Your task to perform on an android device: Clear the cart on bestbuy. Image 0: 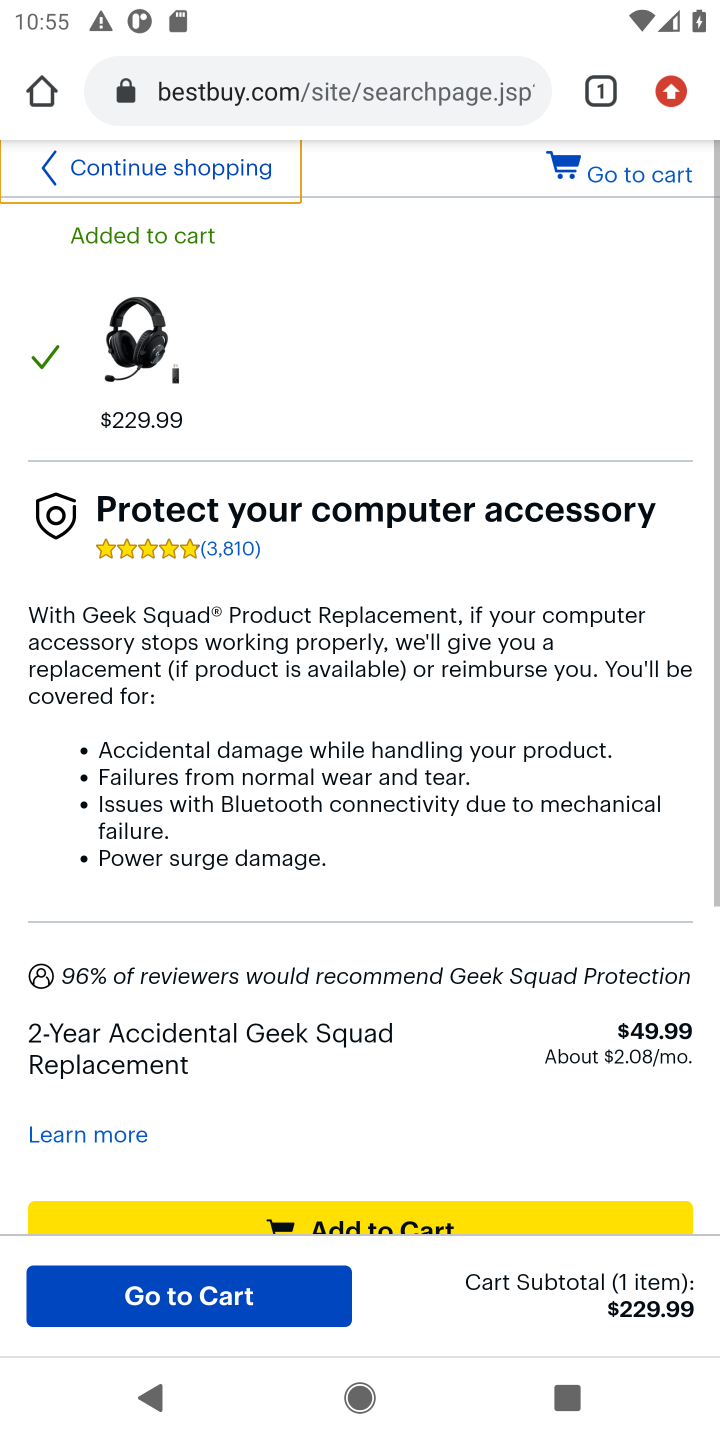
Step 0: press home button
Your task to perform on an android device: Clear the cart on bestbuy. Image 1: 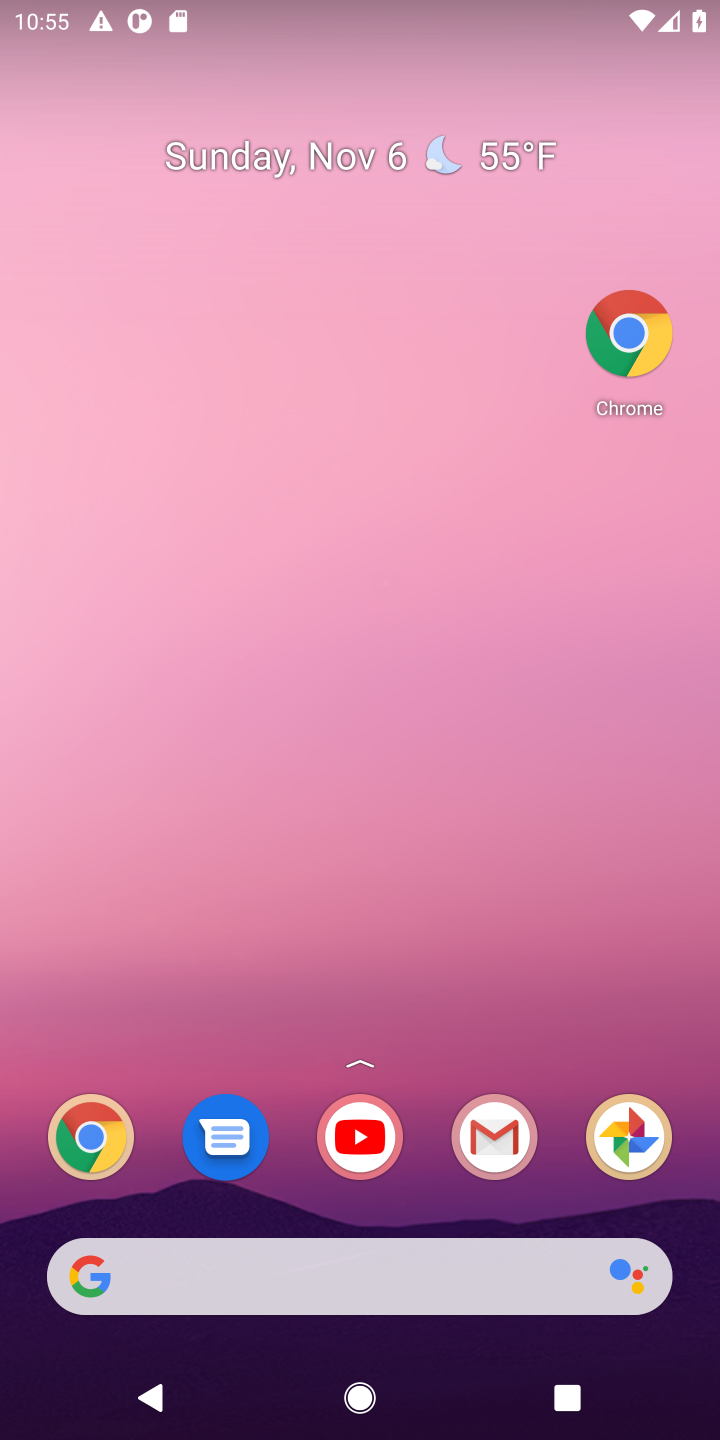
Step 1: drag from (418, 1207) to (255, 31)
Your task to perform on an android device: Clear the cart on bestbuy. Image 2: 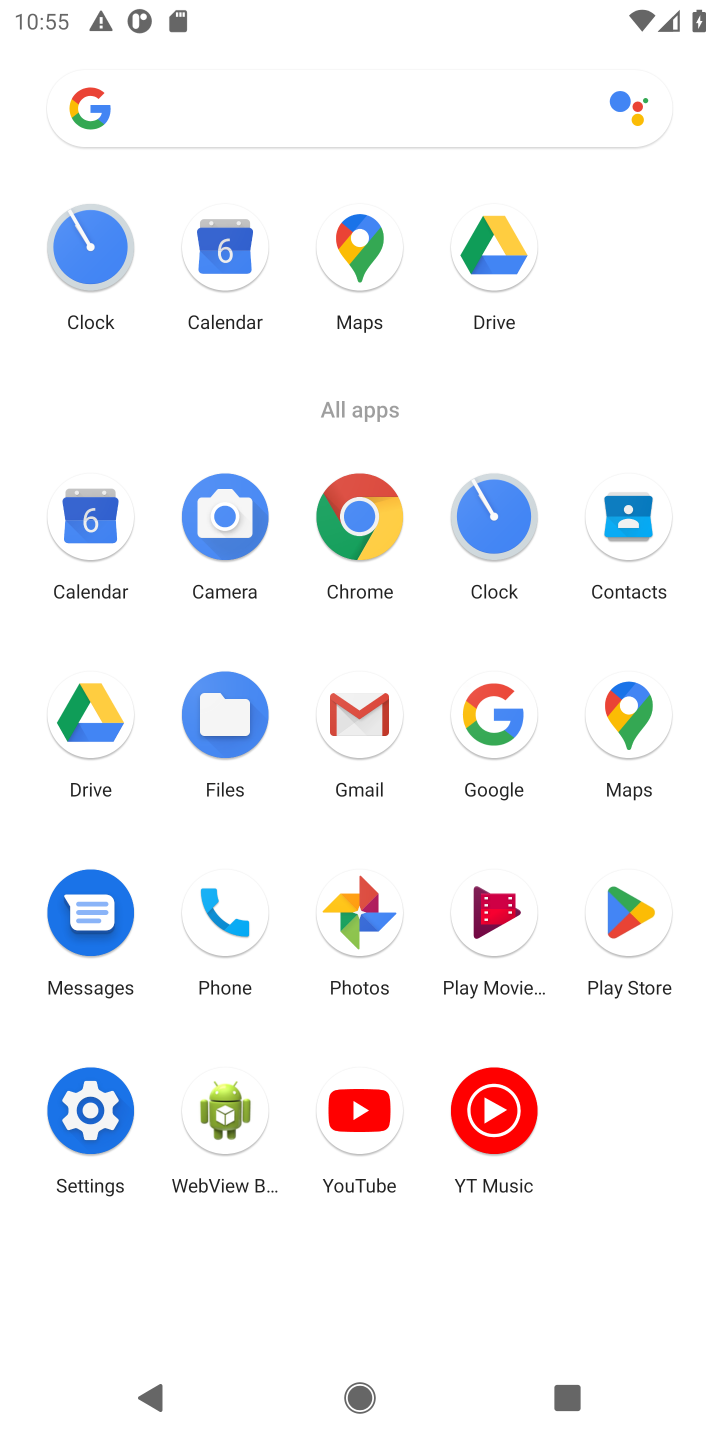
Step 2: click (366, 522)
Your task to perform on an android device: Clear the cart on bestbuy. Image 3: 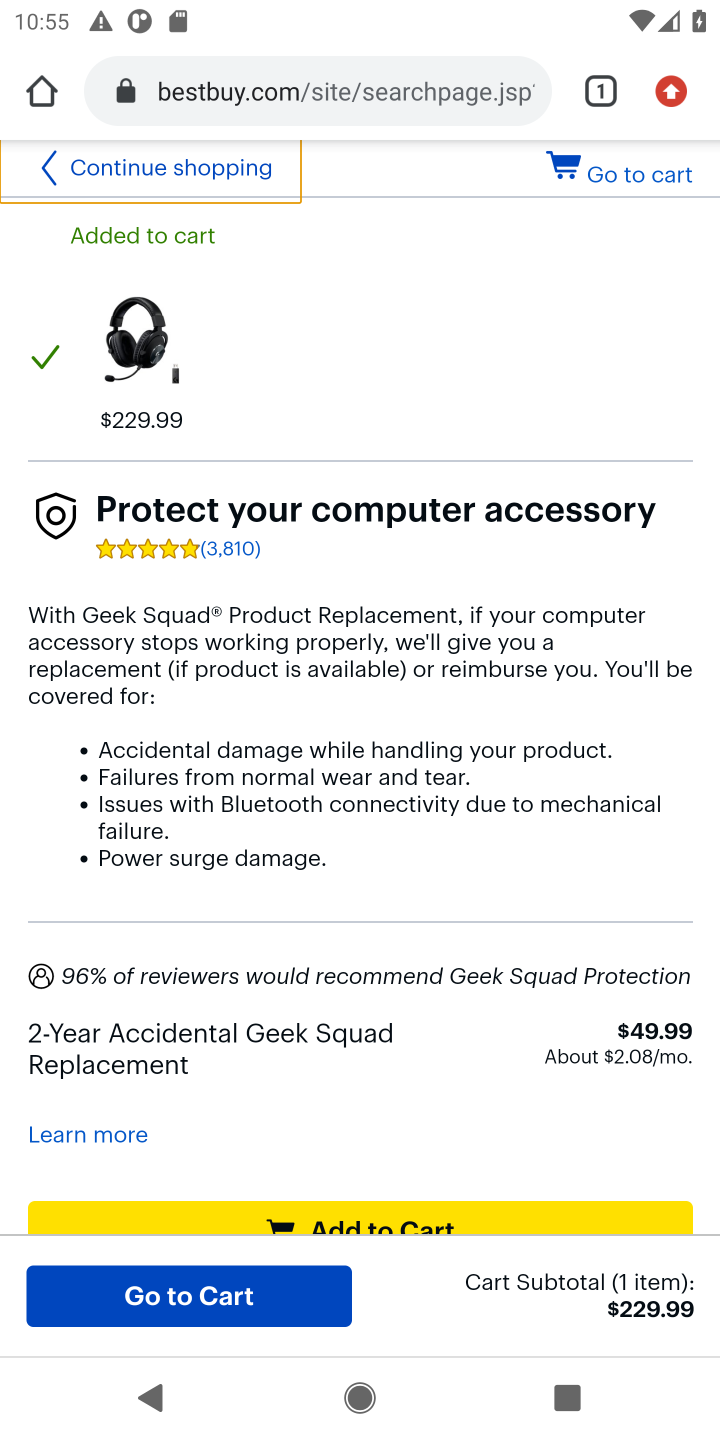
Step 3: click (361, 94)
Your task to perform on an android device: Clear the cart on bestbuy. Image 4: 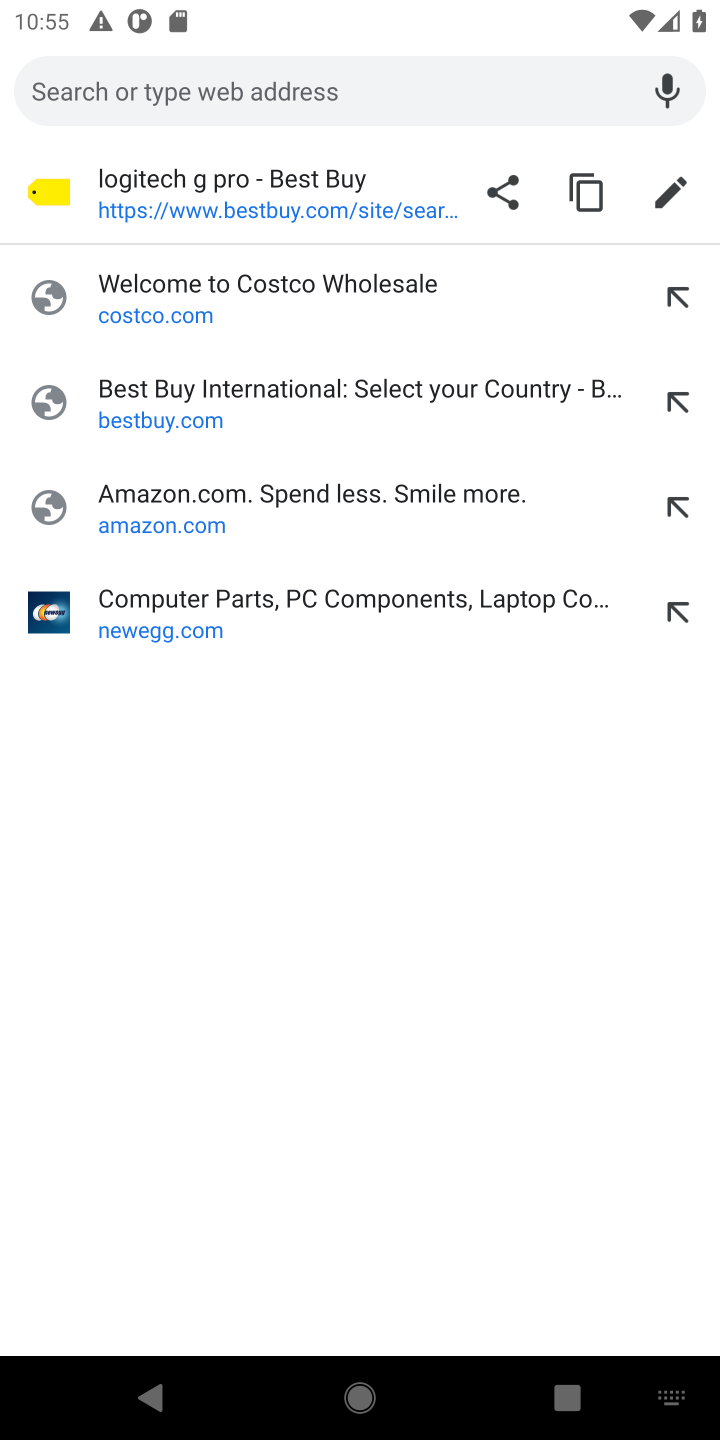
Step 4: type "bestuy.com"
Your task to perform on an android device: Clear the cart on bestbuy. Image 5: 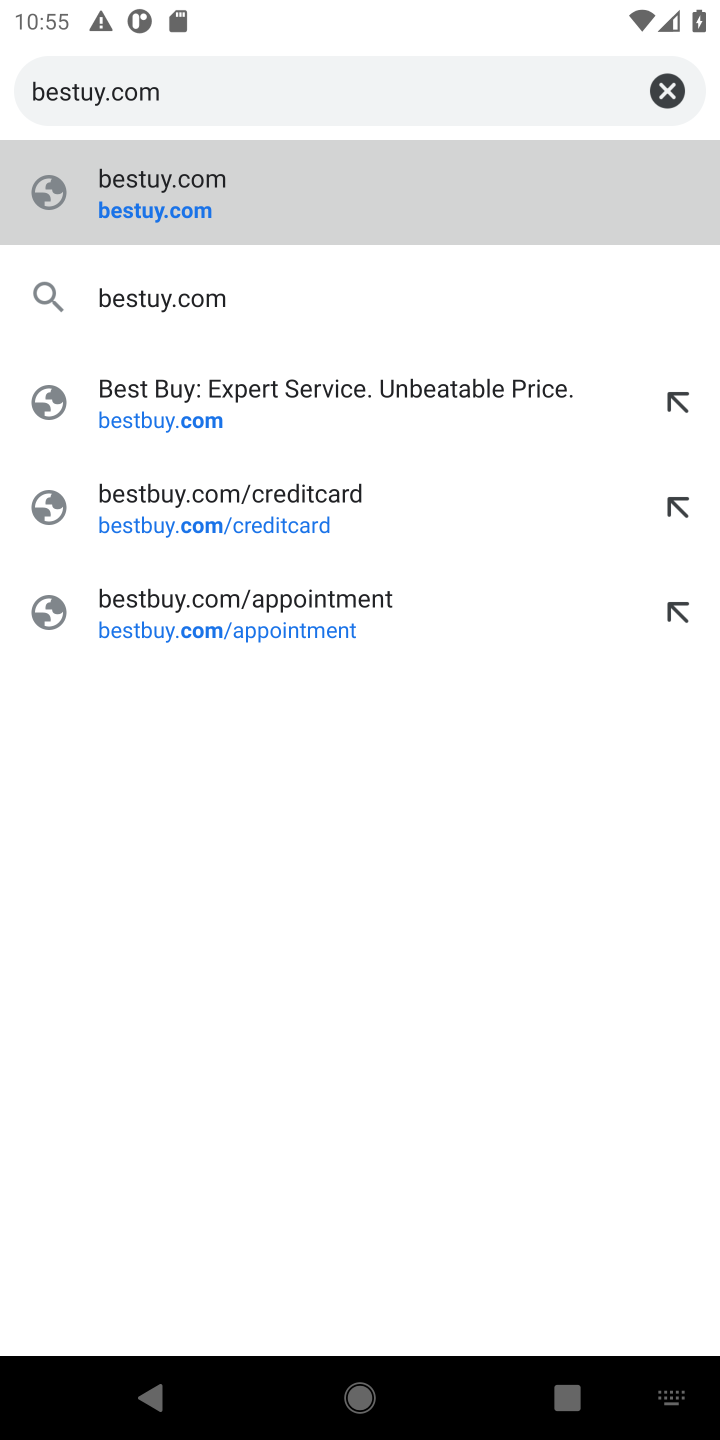
Step 5: press enter
Your task to perform on an android device: Clear the cart on bestbuy. Image 6: 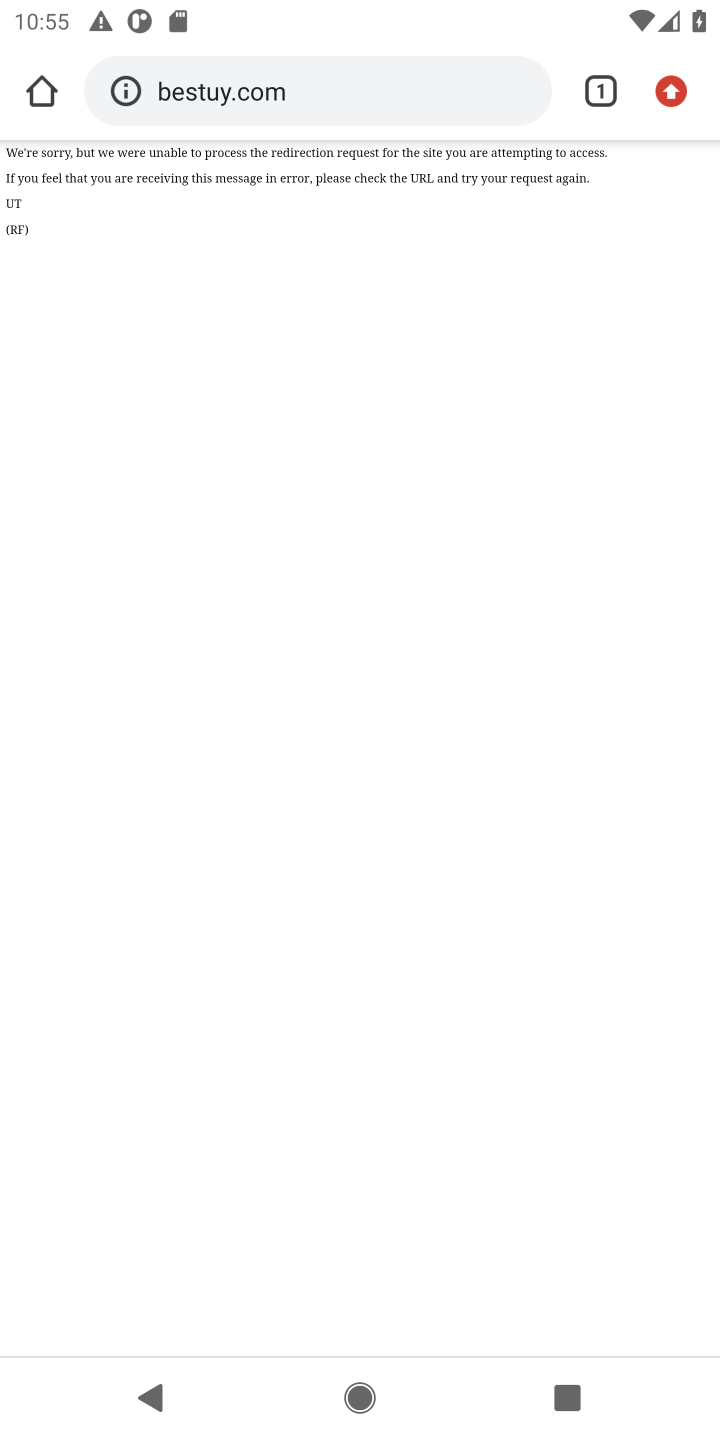
Step 6: click (174, 91)
Your task to perform on an android device: Clear the cart on bestbuy. Image 7: 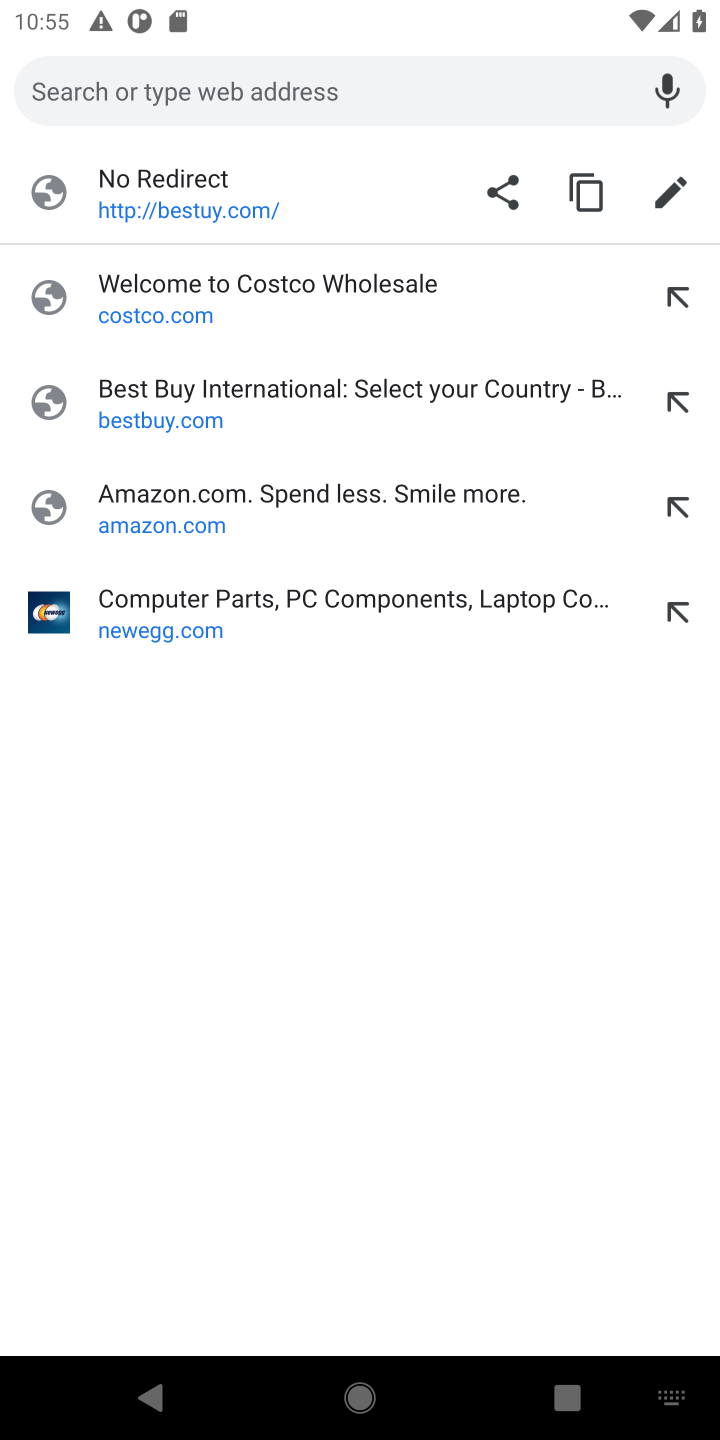
Step 7: type "bestbuy.com"
Your task to perform on an android device: Clear the cart on bestbuy. Image 8: 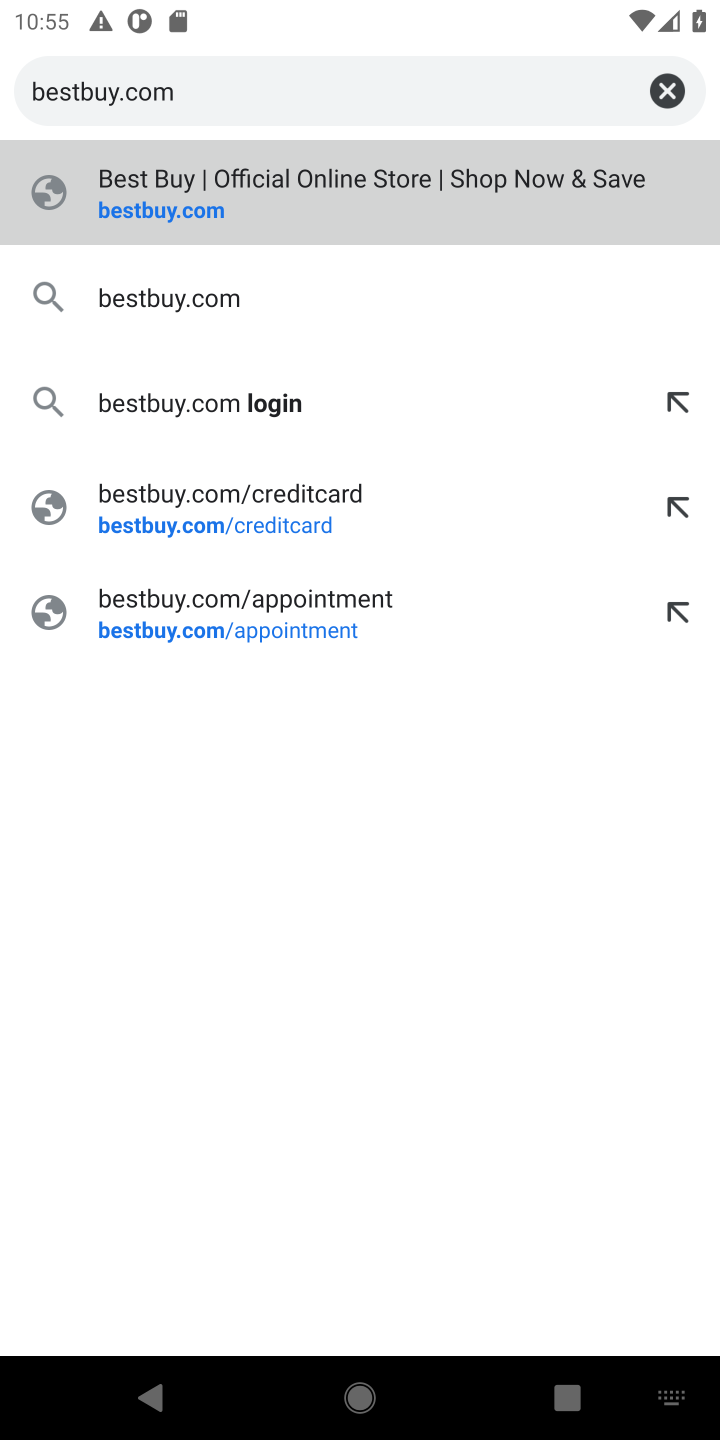
Step 8: press enter
Your task to perform on an android device: Clear the cart on bestbuy. Image 9: 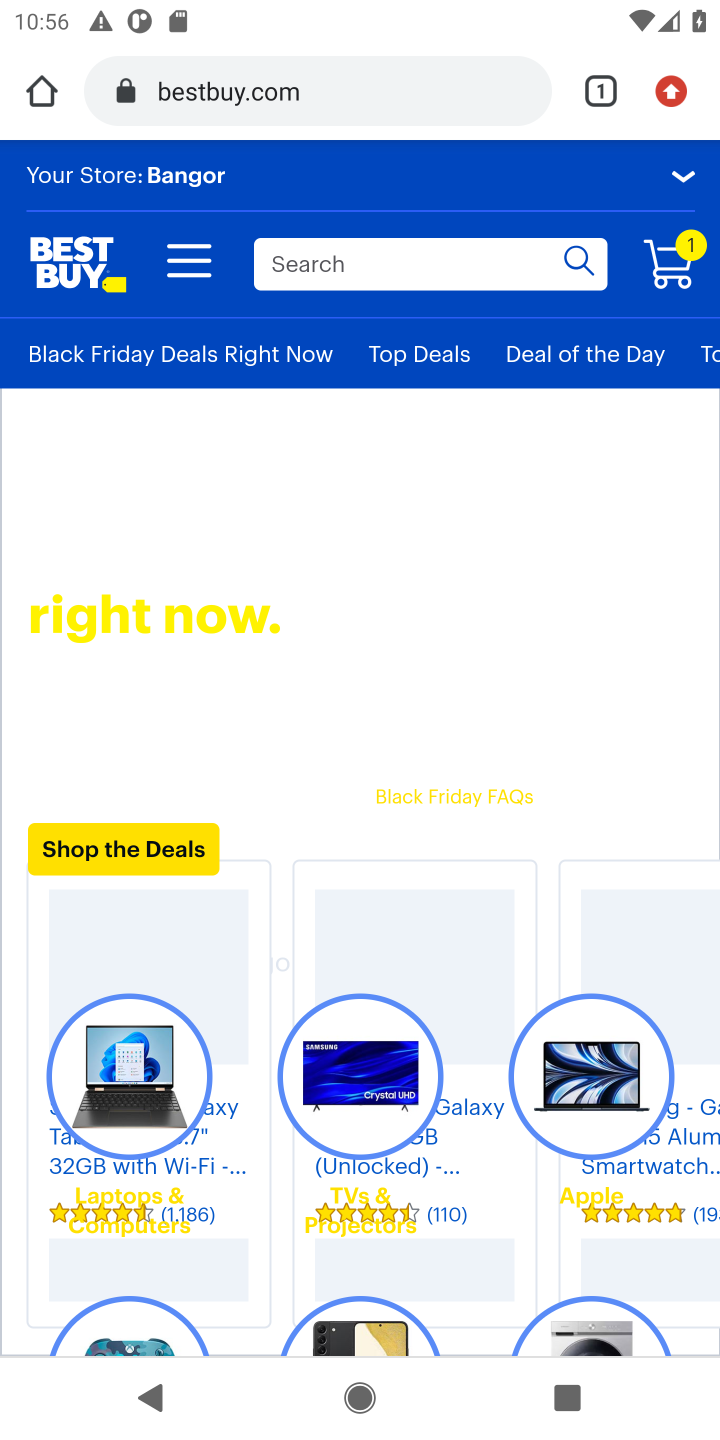
Step 9: click (664, 269)
Your task to perform on an android device: Clear the cart on bestbuy. Image 10: 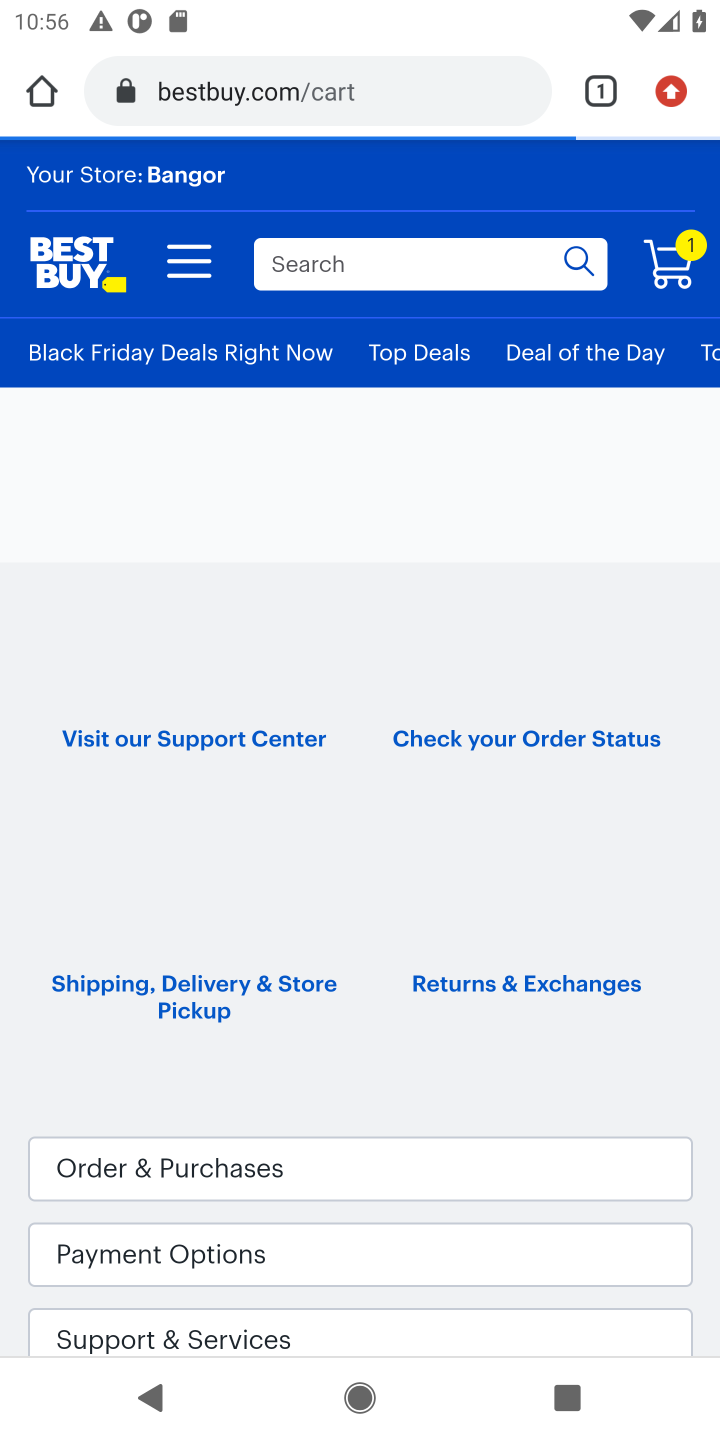
Step 10: click (679, 286)
Your task to perform on an android device: Clear the cart on bestbuy. Image 11: 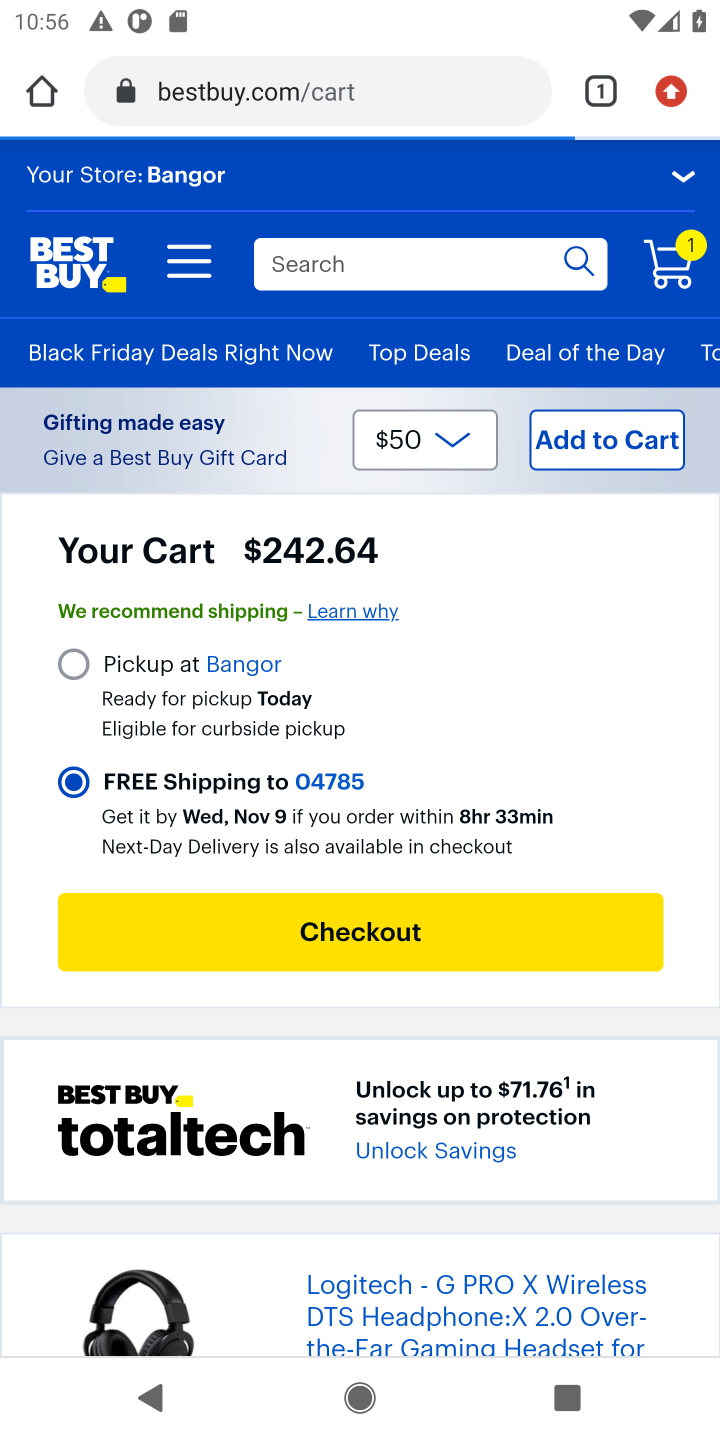
Step 11: drag from (203, 993) to (186, 544)
Your task to perform on an android device: Clear the cart on bestbuy. Image 12: 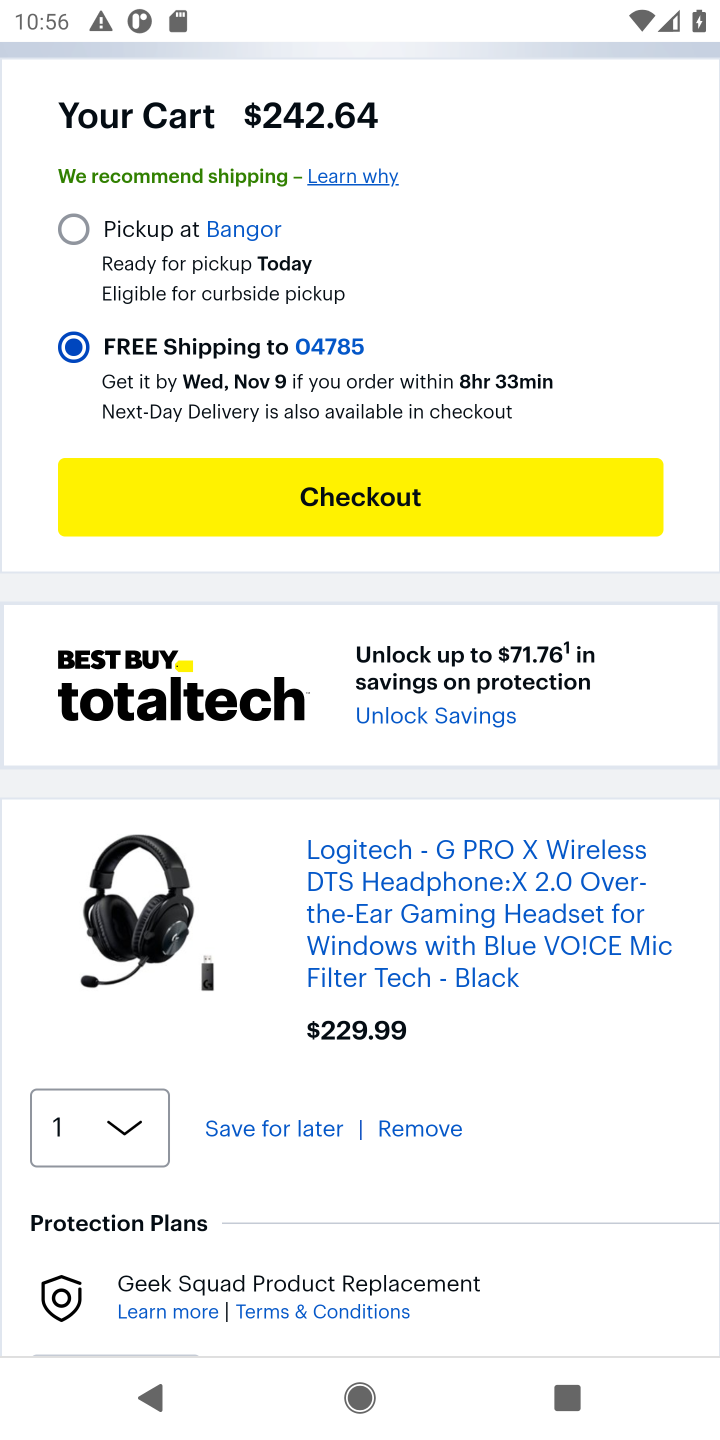
Step 12: click (415, 1106)
Your task to perform on an android device: Clear the cart on bestbuy. Image 13: 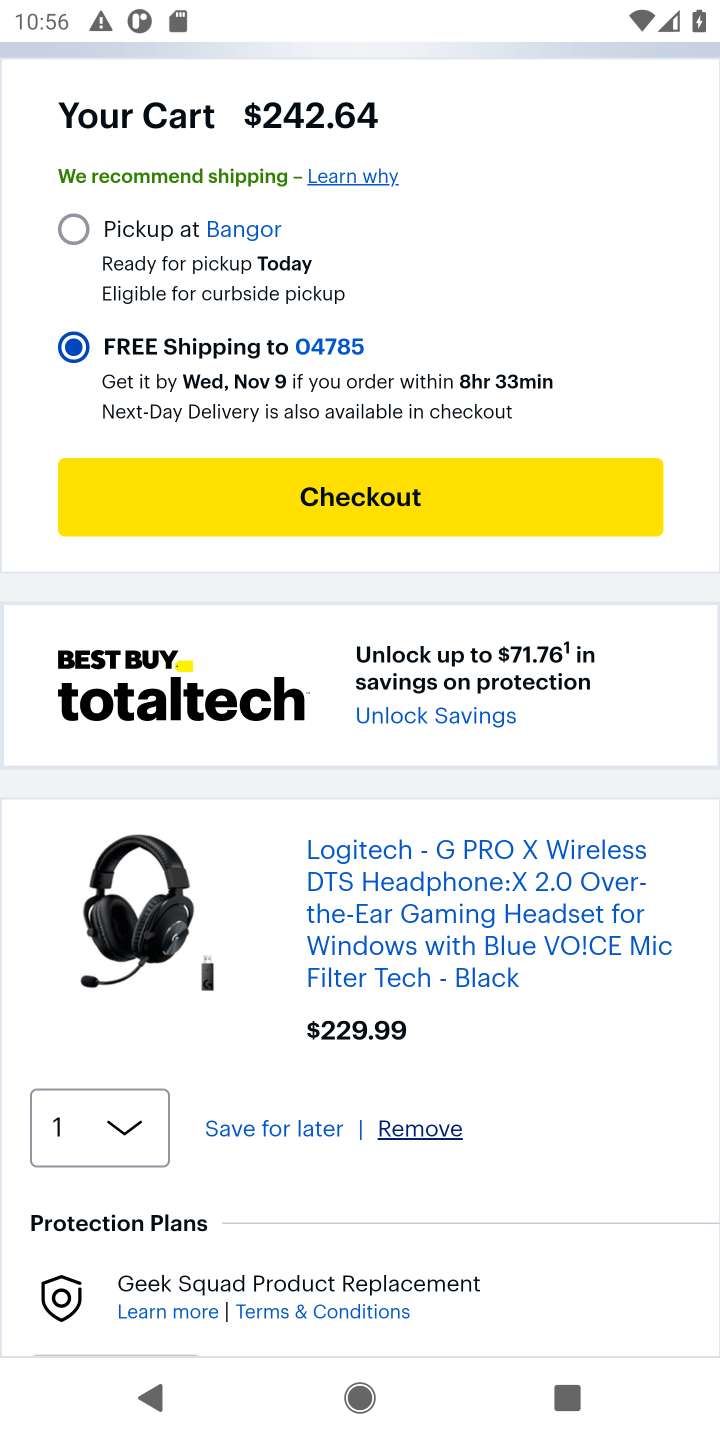
Step 13: click (402, 1122)
Your task to perform on an android device: Clear the cart on bestbuy. Image 14: 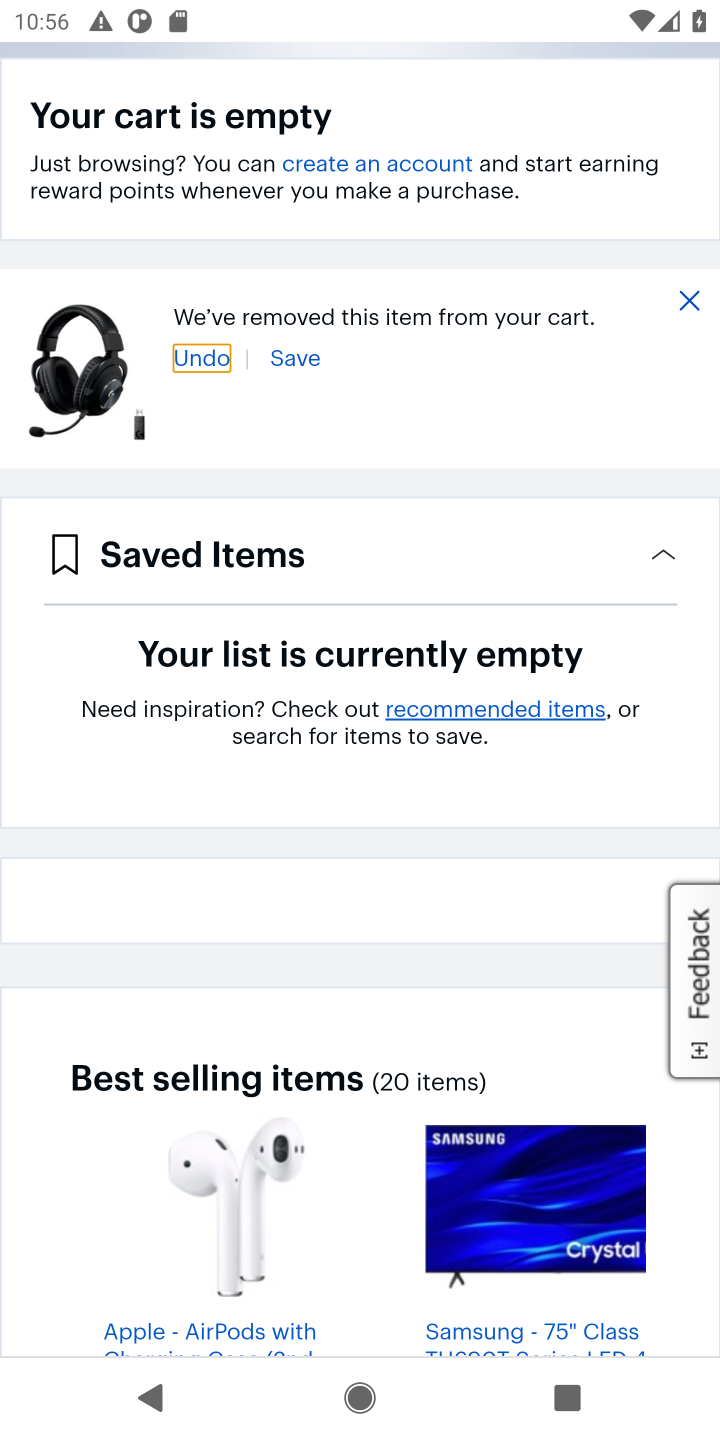
Step 14: click (701, 306)
Your task to perform on an android device: Clear the cart on bestbuy. Image 15: 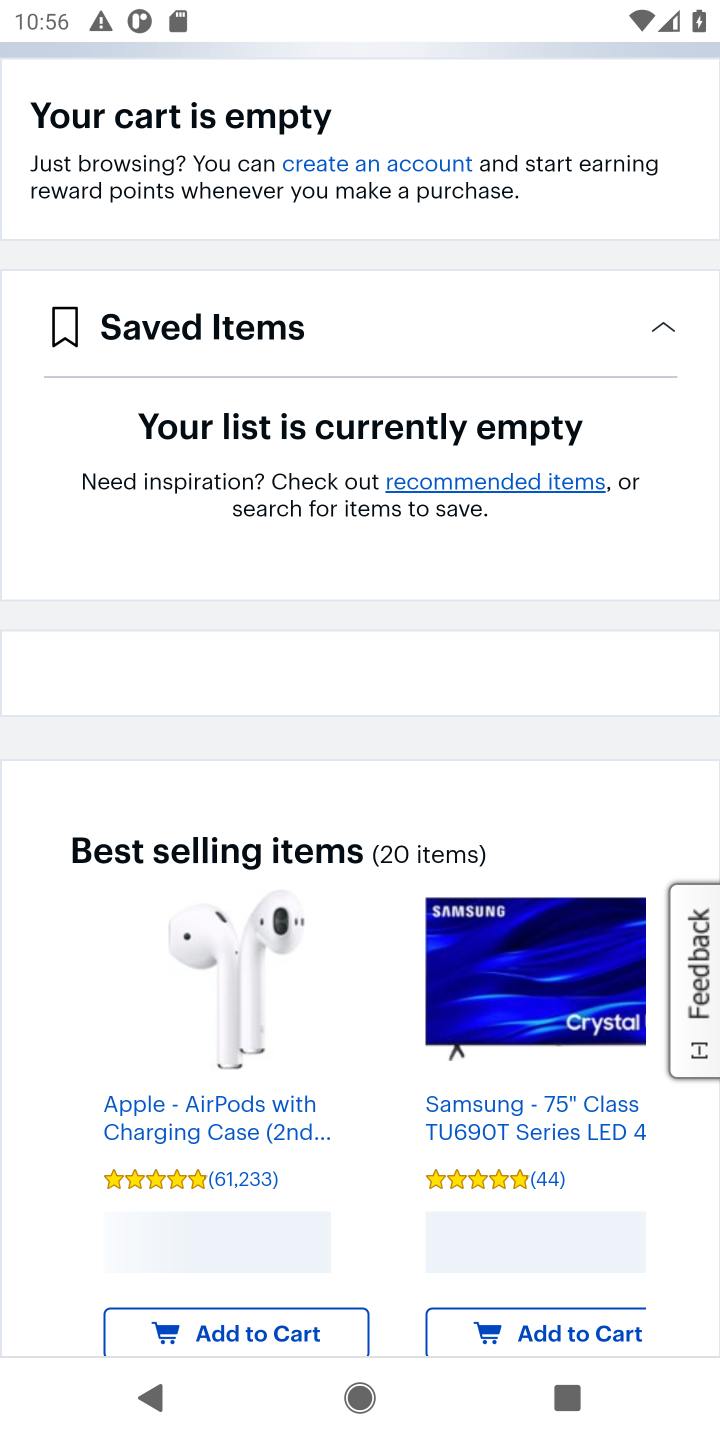
Step 15: task complete